Your task to perform on an android device: open sync settings in chrome Image 0: 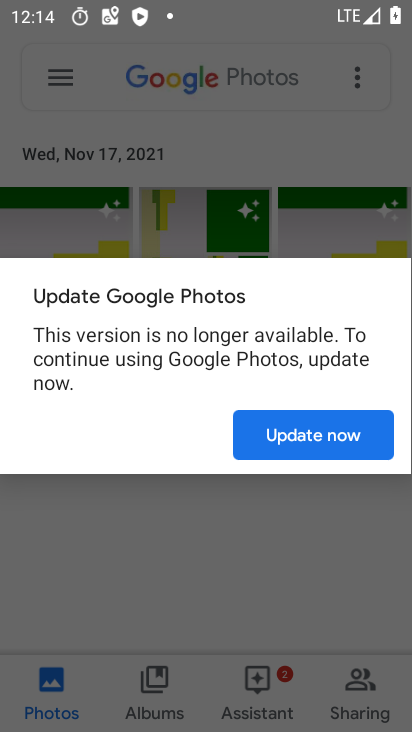
Step 0: press back button
Your task to perform on an android device: open sync settings in chrome Image 1: 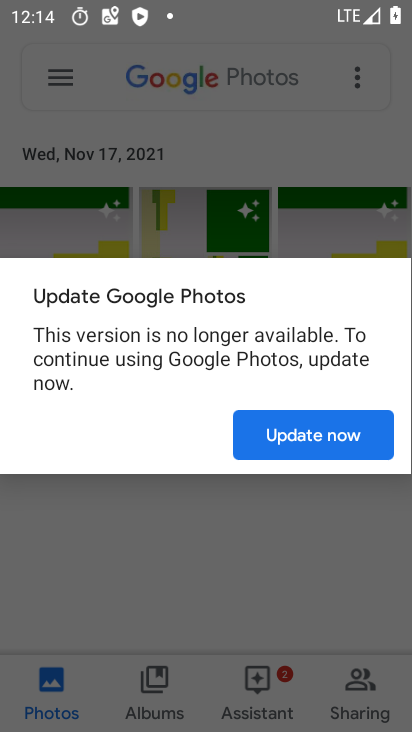
Step 1: press back button
Your task to perform on an android device: open sync settings in chrome Image 2: 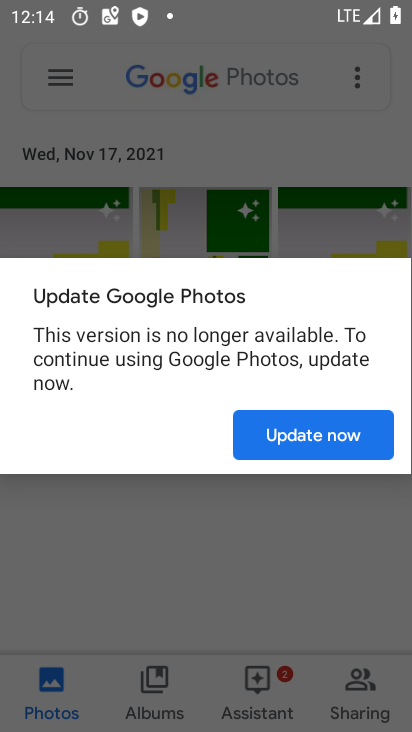
Step 2: press home button
Your task to perform on an android device: open sync settings in chrome Image 3: 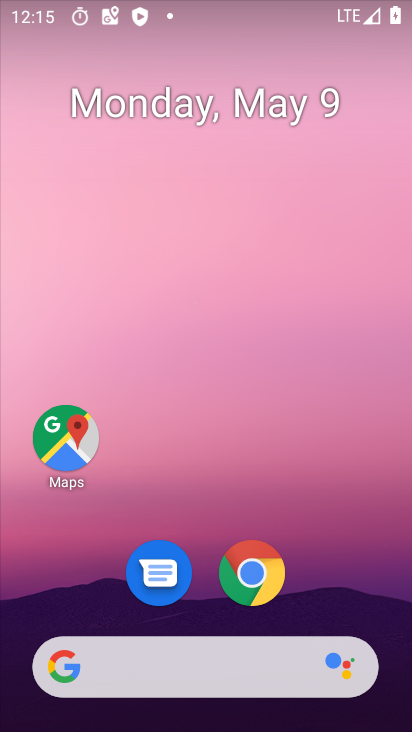
Step 3: click (252, 572)
Your task to perform on an android device: open sync settings in chrome Image 4: 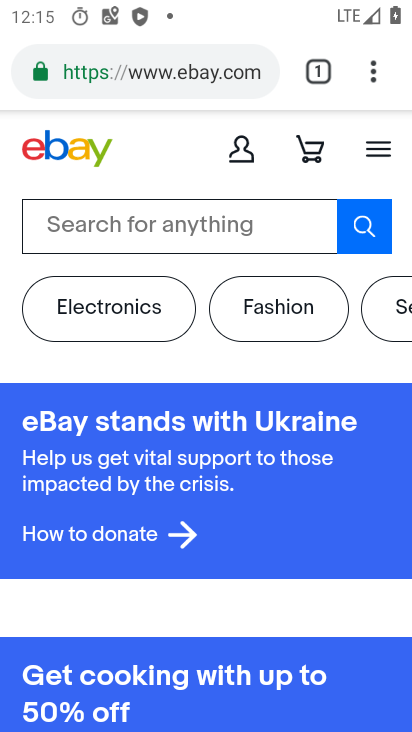
Step 4: drag from (374, 74) to (162, 563)
Your task to perform on an android device: open sync settings in chrome Image 5: 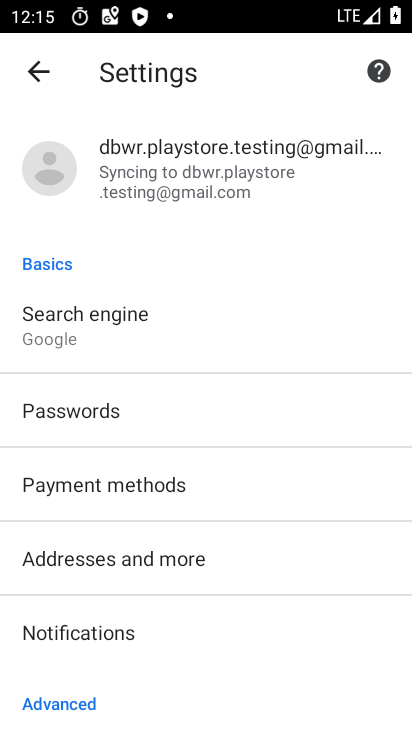
Step 5: drag from (238, 591) to (273, 617)
Your task to perform on an android device: open sync settings in chrome Image 6: 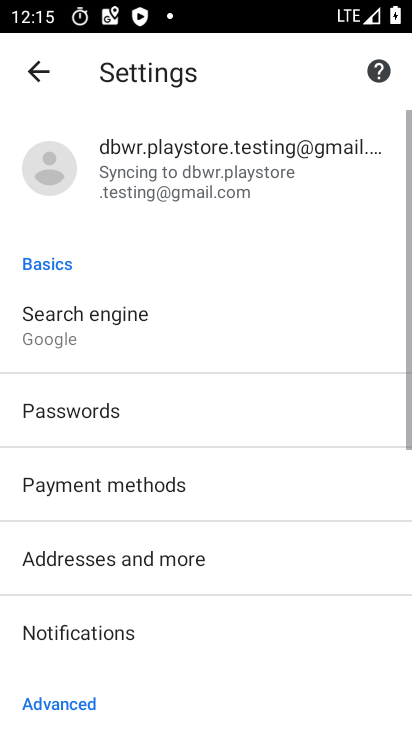
Step 6: click (192, 152)
Your task to perform on an android device: open sync settings in chrome Image 7: 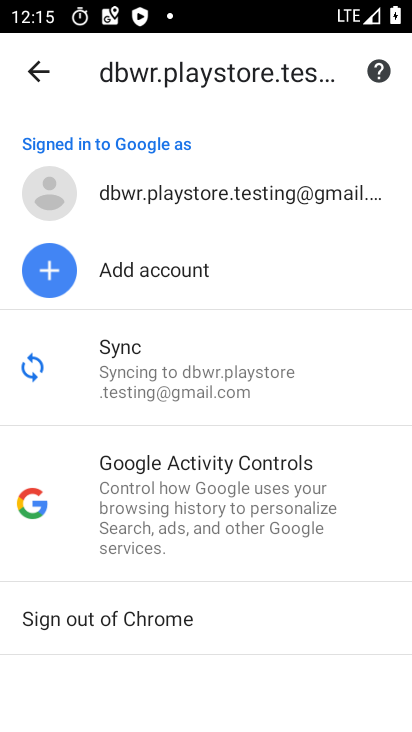
Step 7: click (186, 392)
Your task to perform on an android device: open sync settings in chrome Image 8: 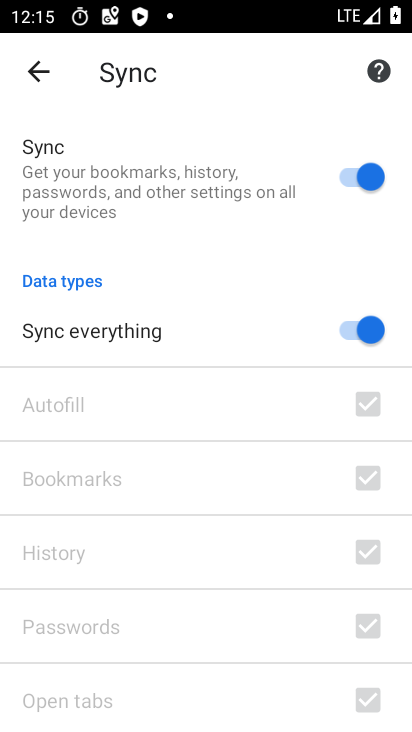
Step 8: task complete